Your task to perform on an android device: visit the assistant section in the google photos Image 0: 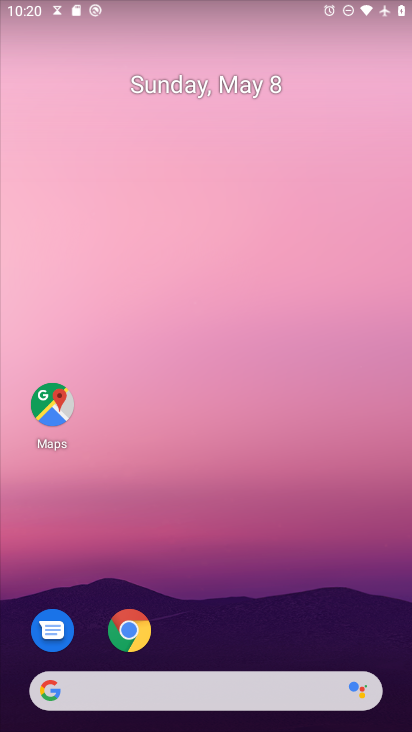
Step 0: drag from (234, 703) to (379, 245)
Your task to perform on an android device: visit the assistant section in the google photos Image 1: 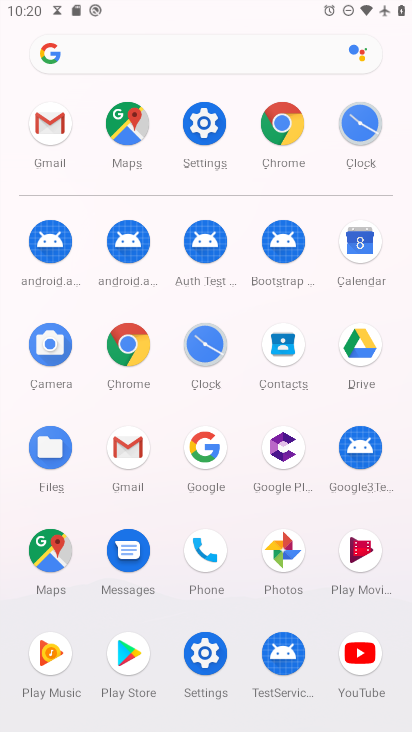
Step 1: click (285, 554)
Your task to perform on an android device: visit the assistant section in the google photos Image 2: 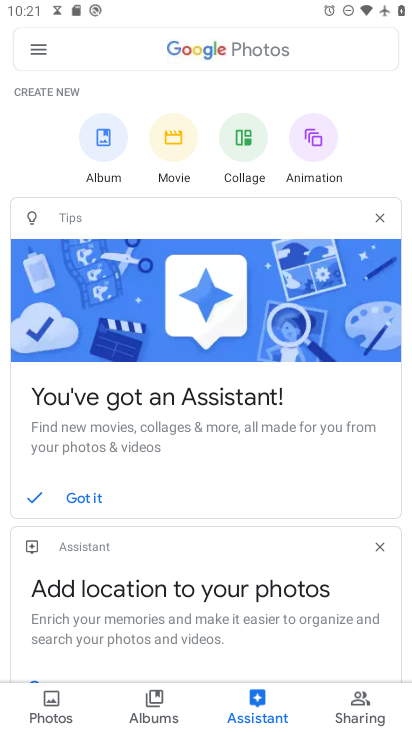
Step 2: task complete